Your task to perform on an android device: Go to Yahoo.com Image 0: 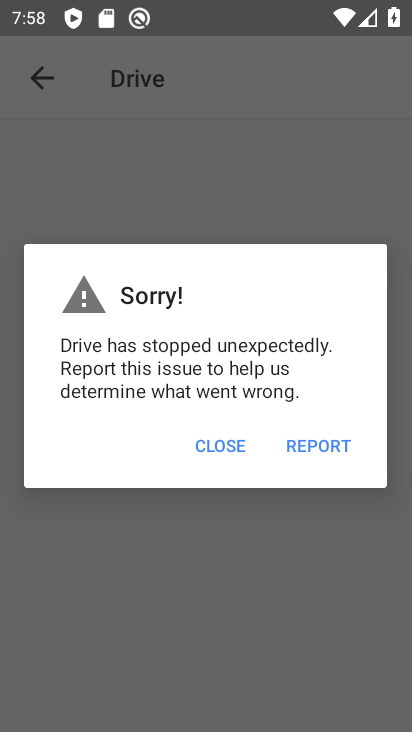
Step 0: press home button
Your task to perform on an android device: Go to Yahoo.com Image 1: 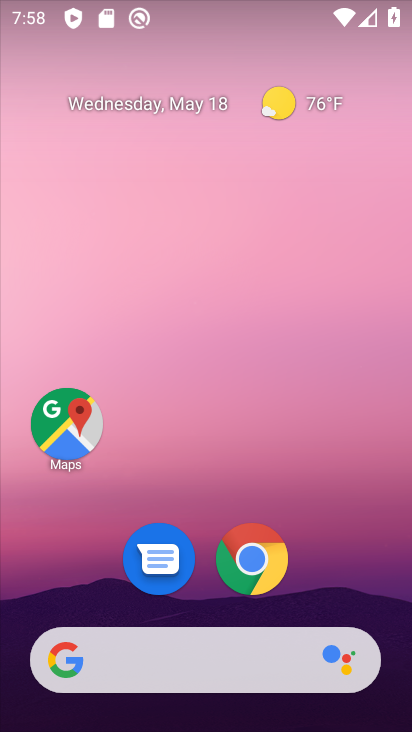
Step 1: drag from (207, 601) to (239, 23)
Your task to perform on an android device: Go to Yahoo.com Image 2: 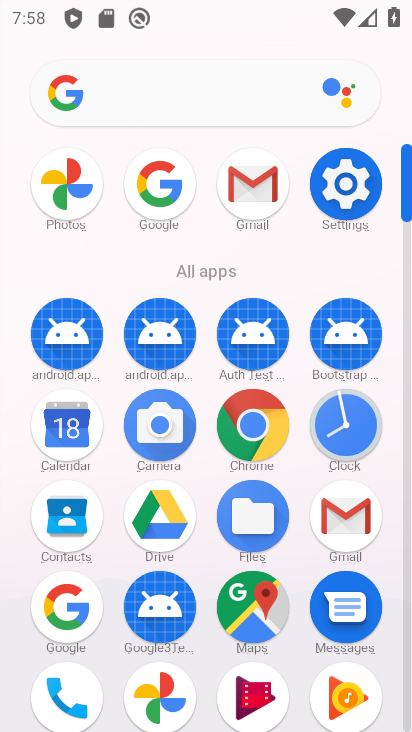
Step 2: click (253, 425)
Your task to perform on an android device: Go to Yahoo.com Image 3: 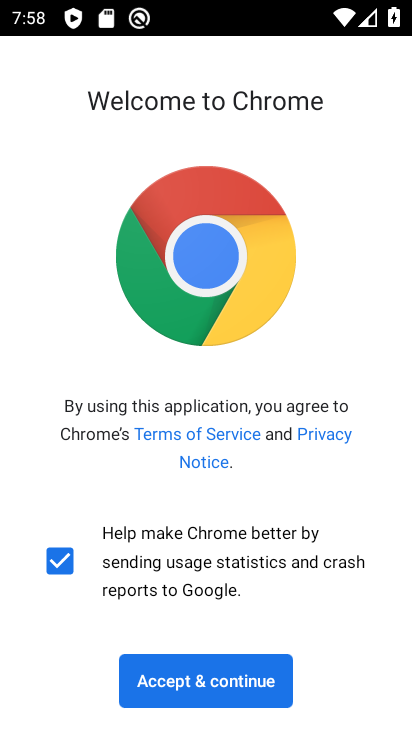
Step 3: click (211, 673)
Your task to perform on an android device: Go to Yahoo.com Image 4: 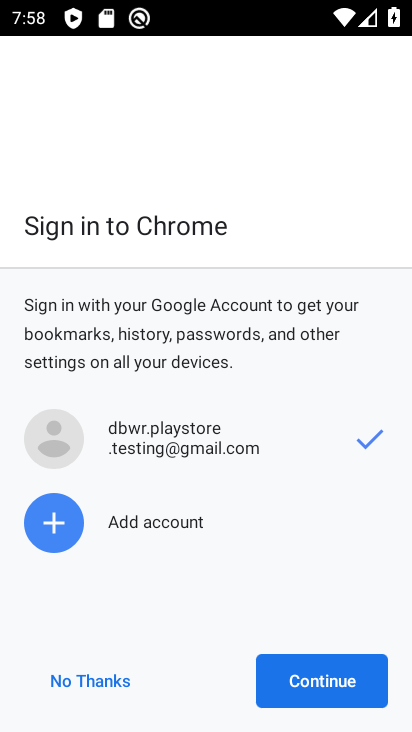
Step 4: click (334, 668)
Your task to perform on an android device: Go to Yahoo.com Image 5: 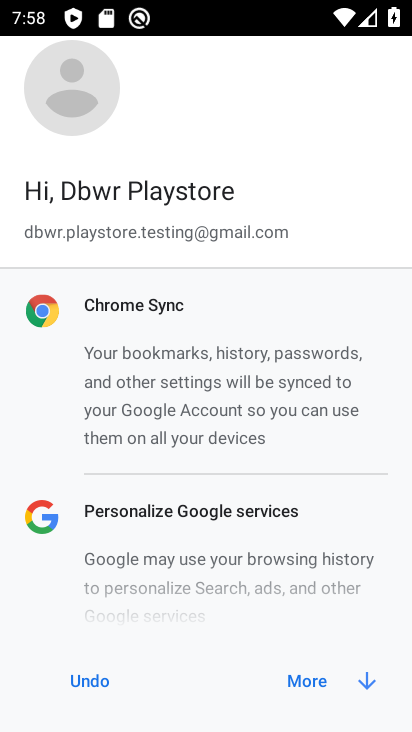
Step 5: click (334, 668)
Your task to perform on an android device: Go to Yahoo.com Image 6: 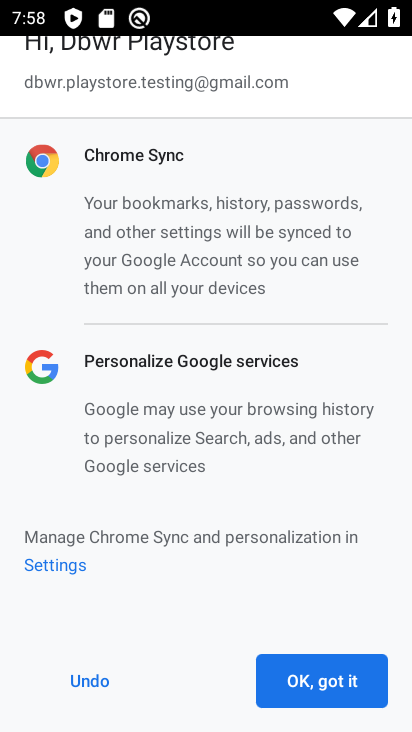
Step 6: click (334, 669)
Your task to perform on an android device: Go to Yahoo.com Image 7: 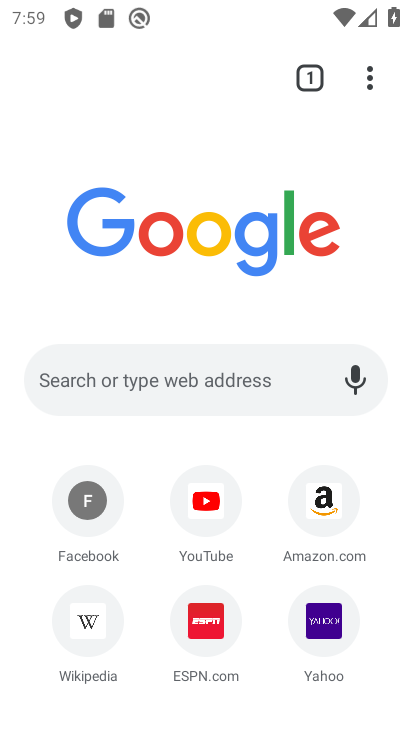
Step 7: click (322, 627)
Your task to perform on an android device: Go to Yahoo.com Image 8: 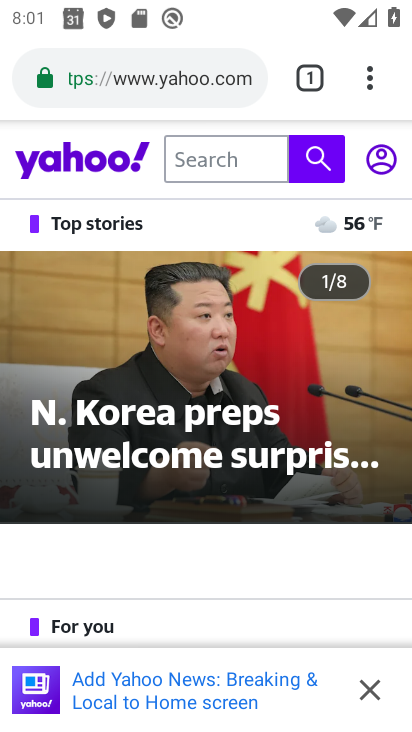
Step 8: task complete